Your task to perform on an android device: What's on my calendar today? Image 0: 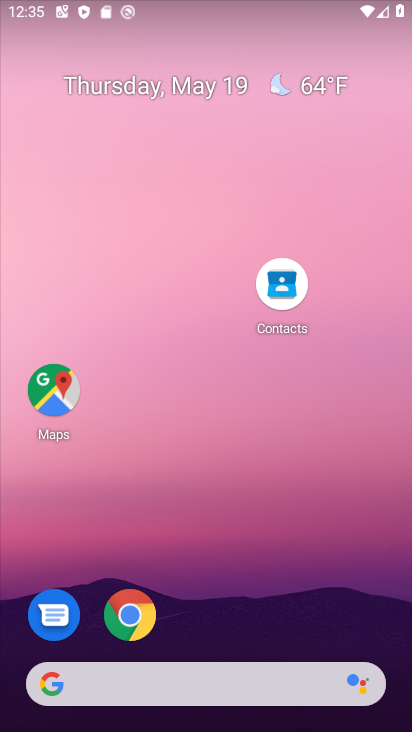
Step 0: drag from (253, 522) to (222, 191)
Your task to perform on an android device: What's on my calendar today? Image 1: 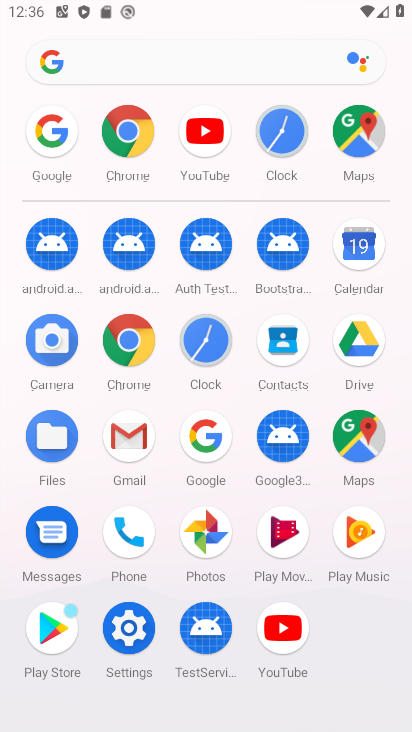
Step 1: click (361, 256)
Your task to perform on an android device: What's on my calendar today? Image 2: 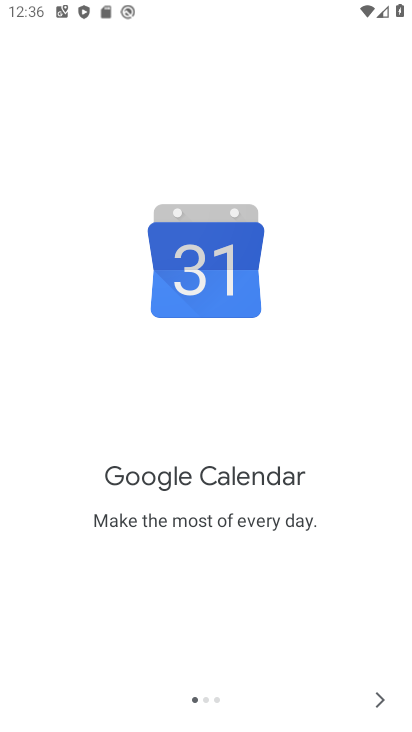
Step 2: click (369, 711)
Your task to perform on an android device: What's on my calendar today? Image 3: 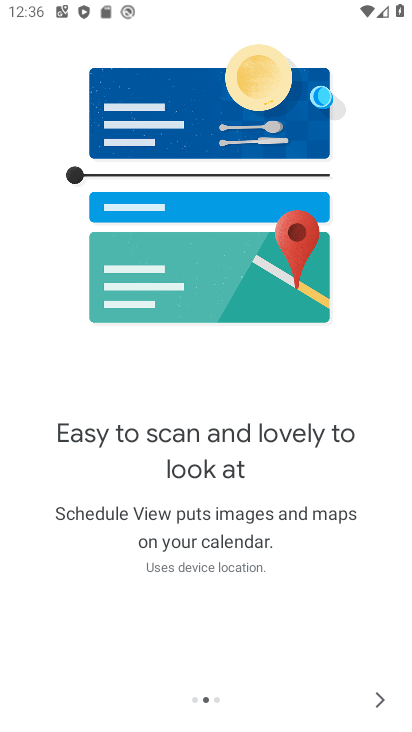
Step 3: click (373, 705)
Your task to perform on an android device: What's on my calendar today? Image 4: 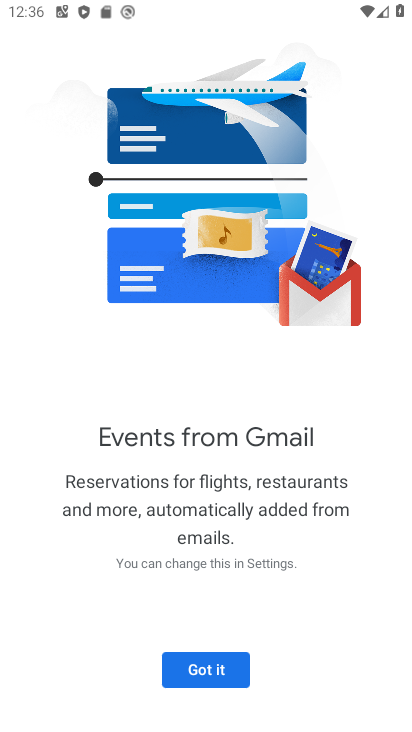
Step 4: click (210, 671)
Your task to perform on an android device: What's on my calendar today? Image 5: 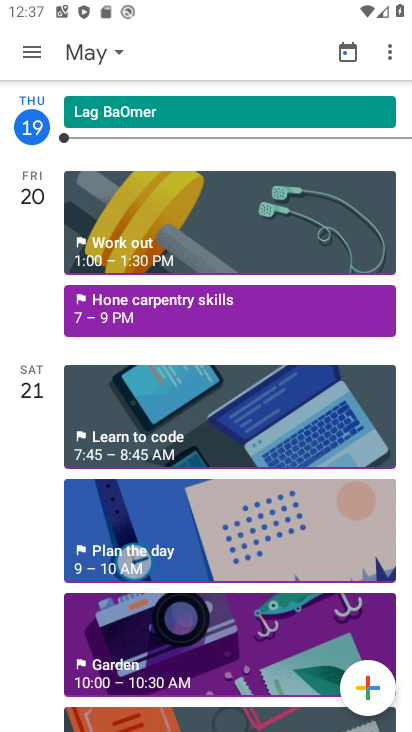
Step 5: task complete